Your task to perform on an android device: Do I have any events this weekend? Image 0: 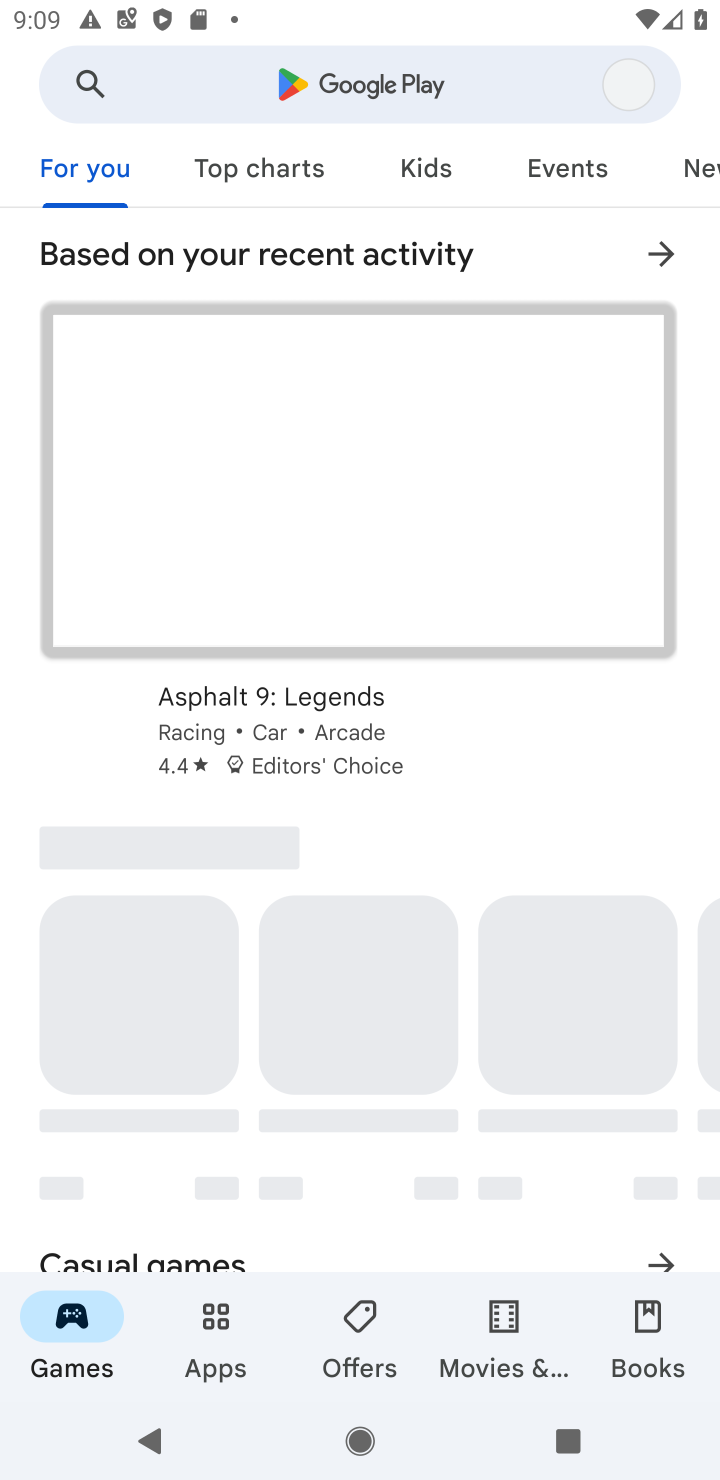
Step 0: press home button
Your task to perform on an android device: Do I have any events this weekend? Image 1: 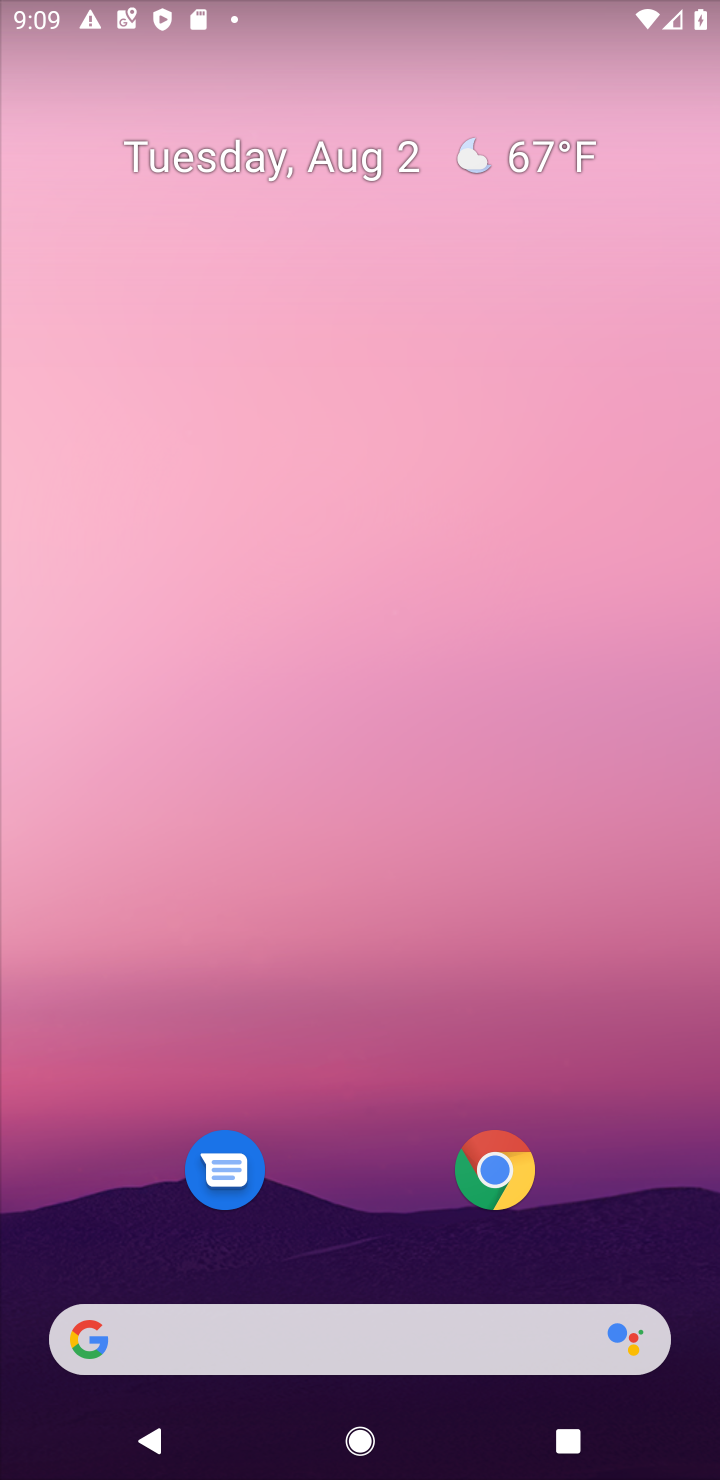
Step 1: drag from (310, 1031) to (338, 278)
Your task to perform on an android device: Do I have any events this weekend? Image 2: 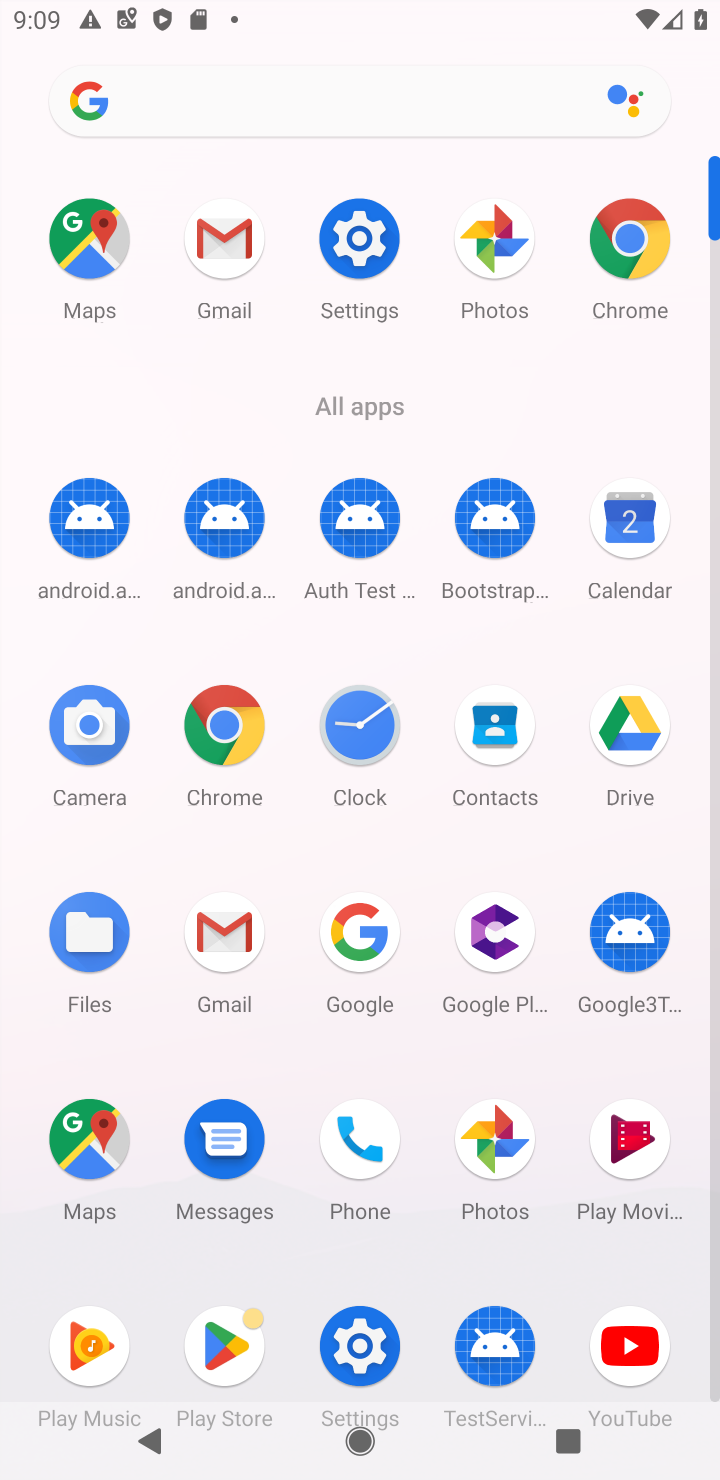
Step 2: click (629, 560)
Your task to perform on an android device: Do I have any events this weekend? Image 3: 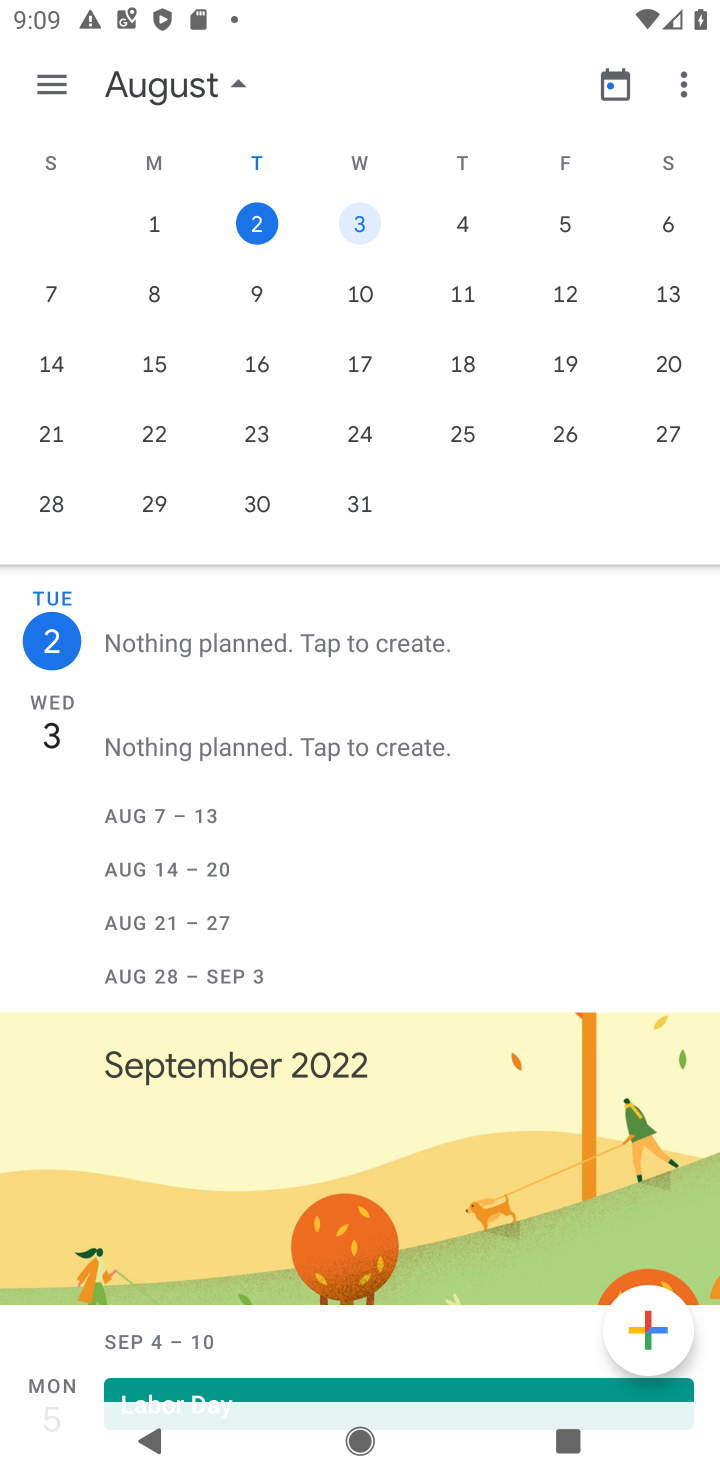
Step 3: click (57, 89)
Your task to perform on an android device: Do I have any events this weekend? Image 4: 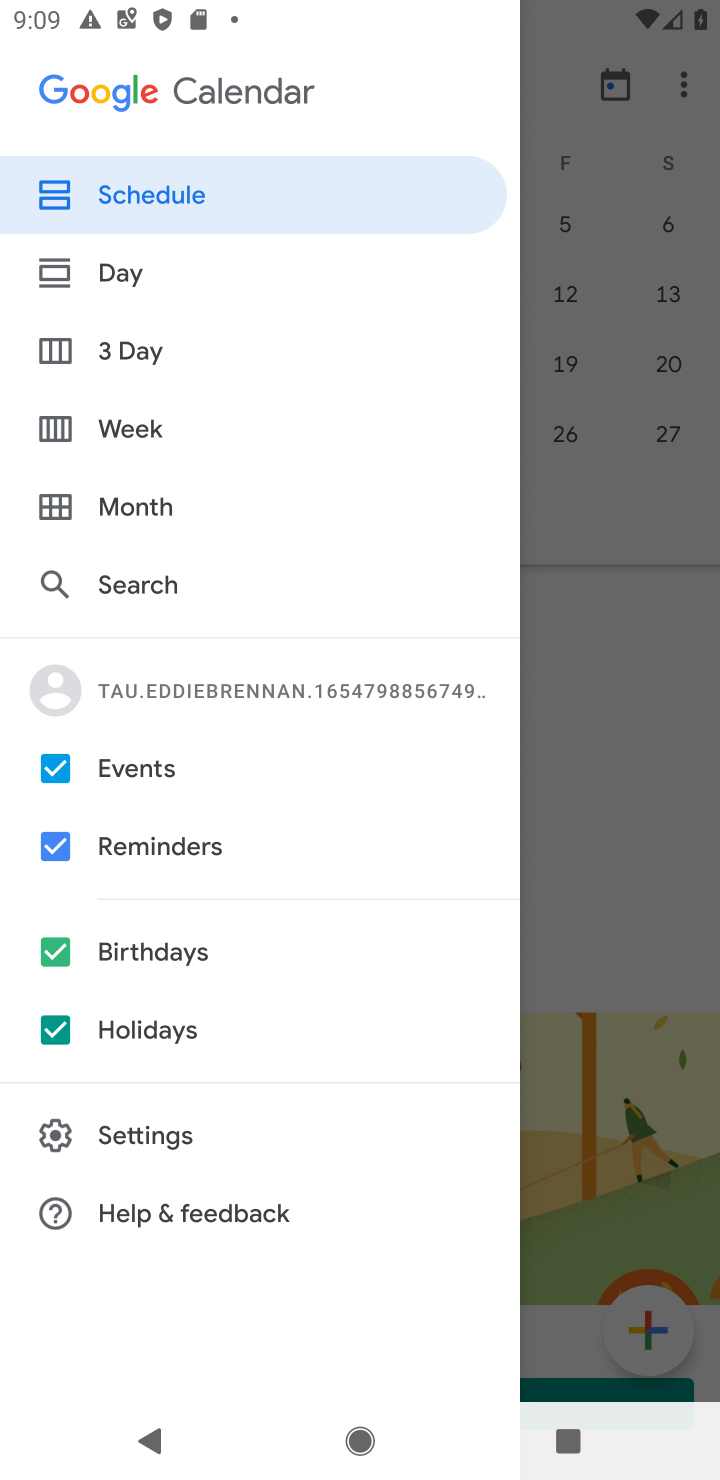
Step 4: click (117, 424)
Your task to perform on an android device: Do I have any events this weekend? Image 5: 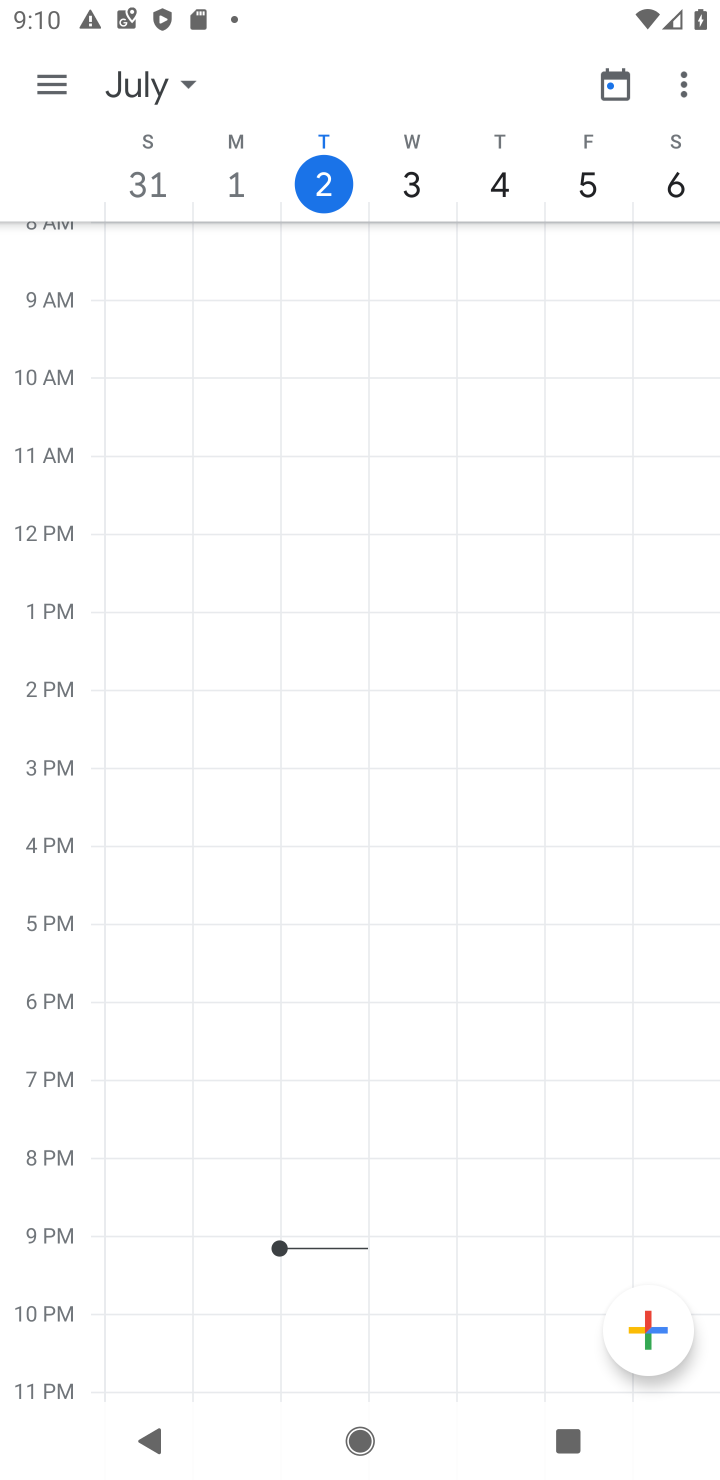
Step 5: task complete